Your task to perform on an android device: Clear the cart on amazon.com. Image 0: 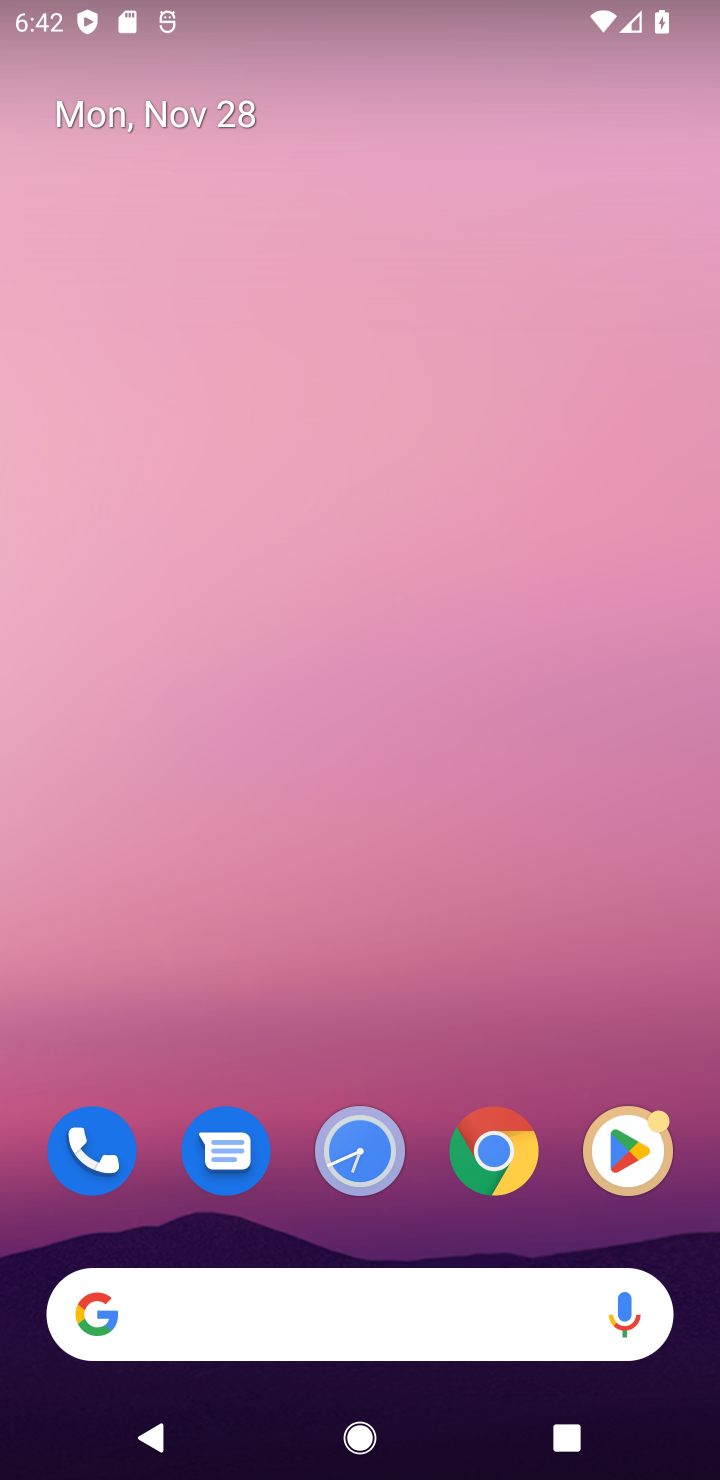
Step 0: click (479, 1303)
Your task to perform on an android device: Clear the cart on amazon.com. Image 1: 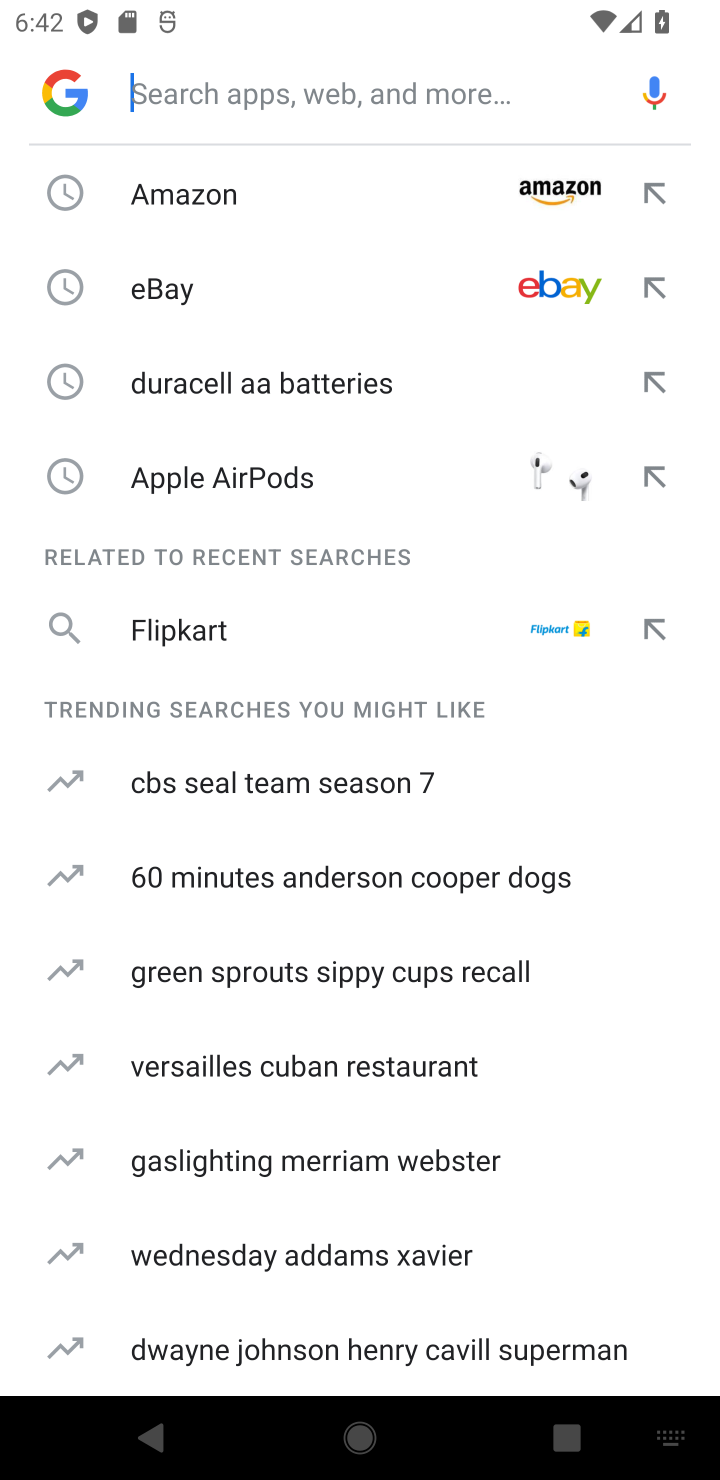
Step 1: click (232, 196)
Your task to perform on an android device: Clear the cart on amazon.com. Image 2: 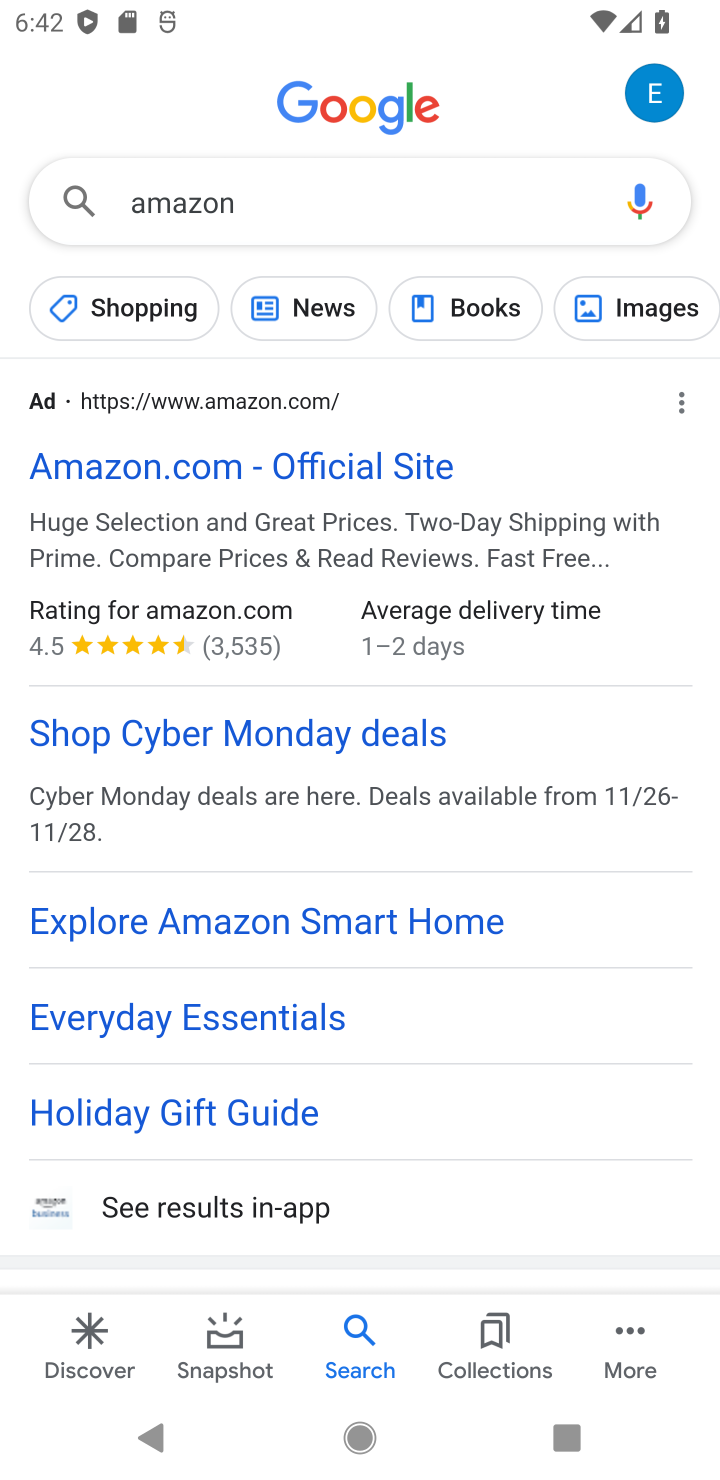
Step 2: click (106, 461)
Your task to perform on an android device: Clear the cart on amazon.com. Image 3: 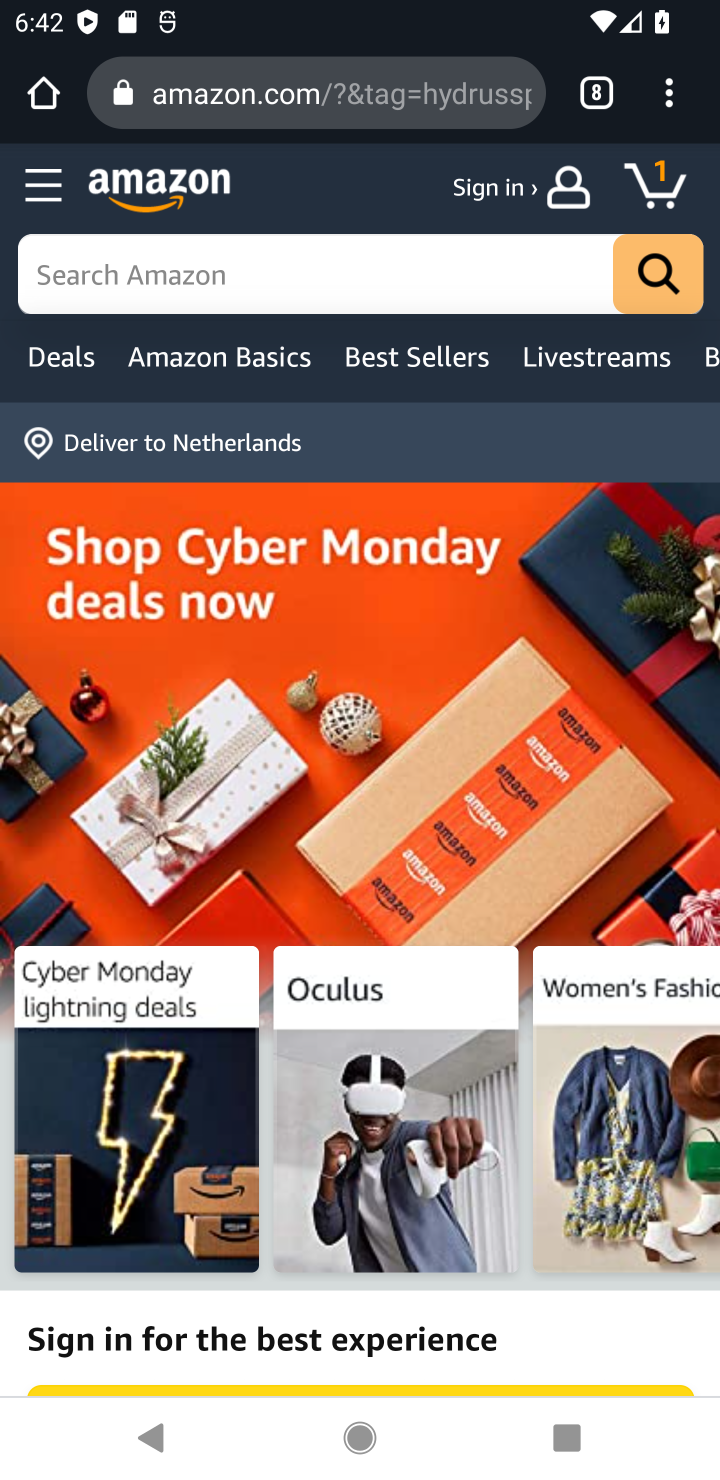
Step 3: click (292, 269)
Your task to perform on an android device: Clear the cart on amazon.com. Image 4: 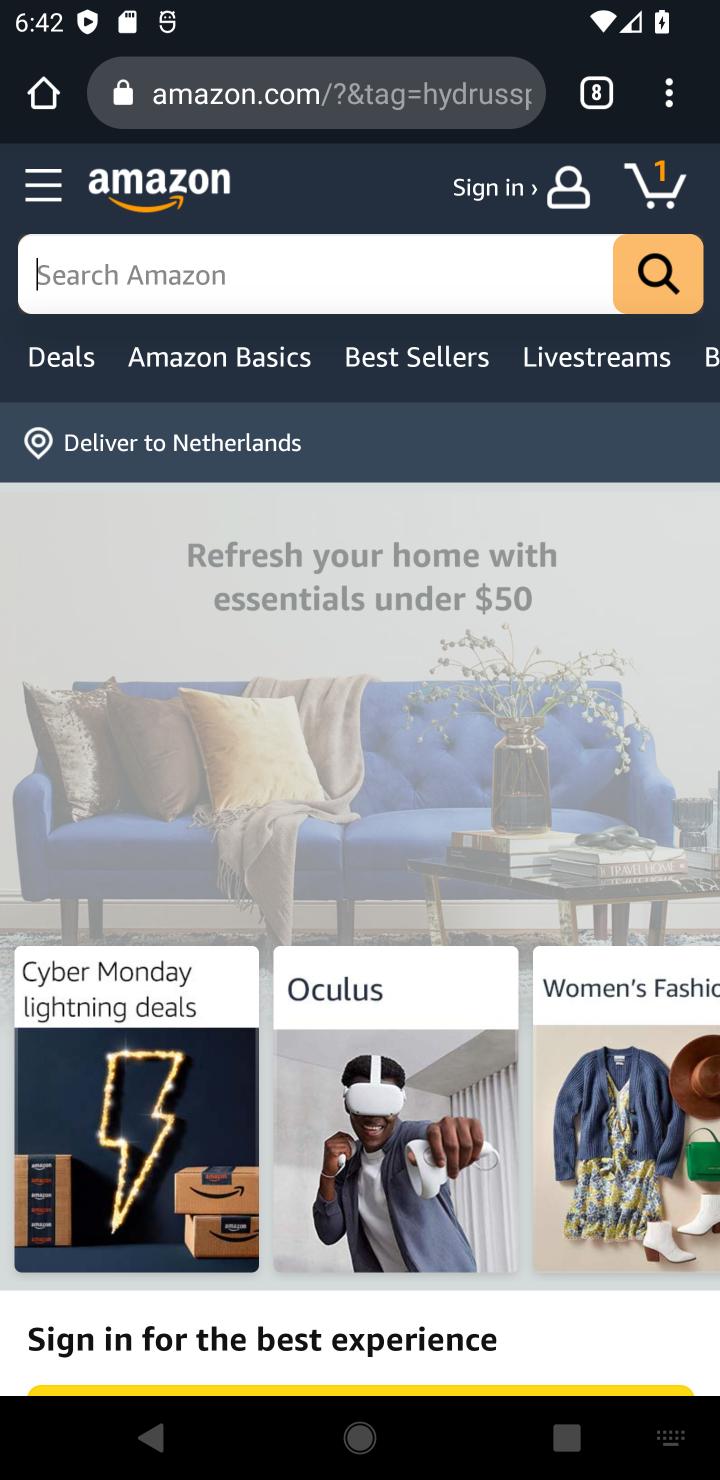
Step 4: click (639, 186)
Your task to perform on an android device: Clear the cart on amazon.com. Image 5: 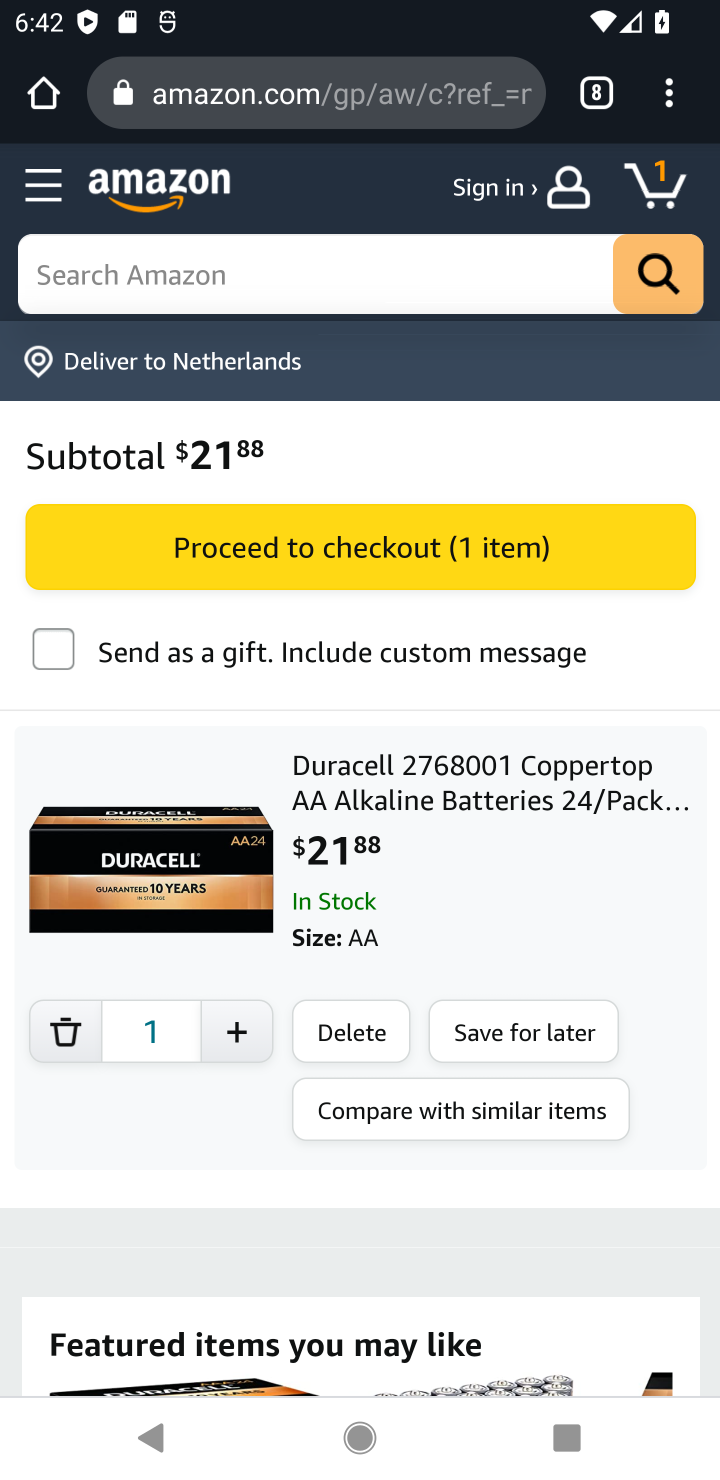
Step 5: click (639, 186)
Your task to perform on an android device: Clear the cart on amazon.com. Image 6: 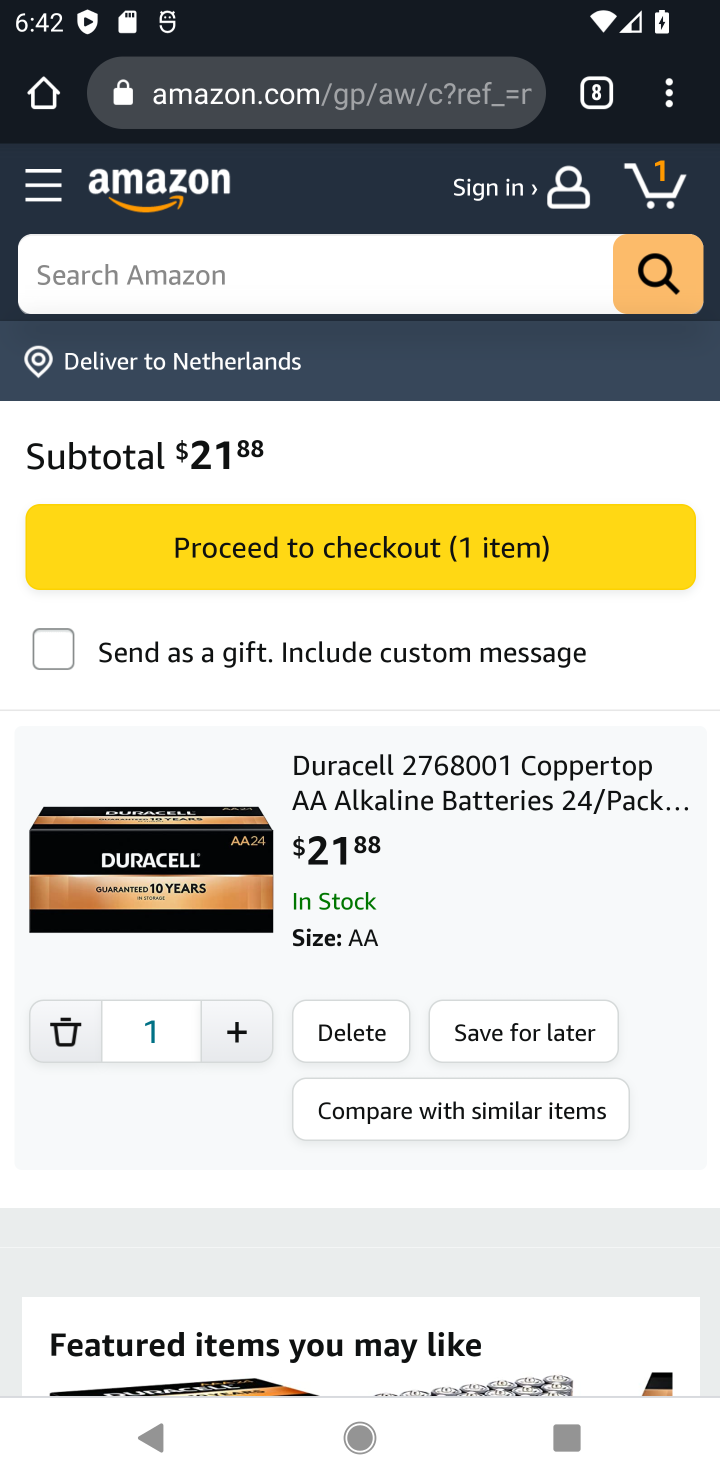
Step 6: click (340, 1021)
Your task to perform on an android device: Clear the cart on amazon.com. Image 7: 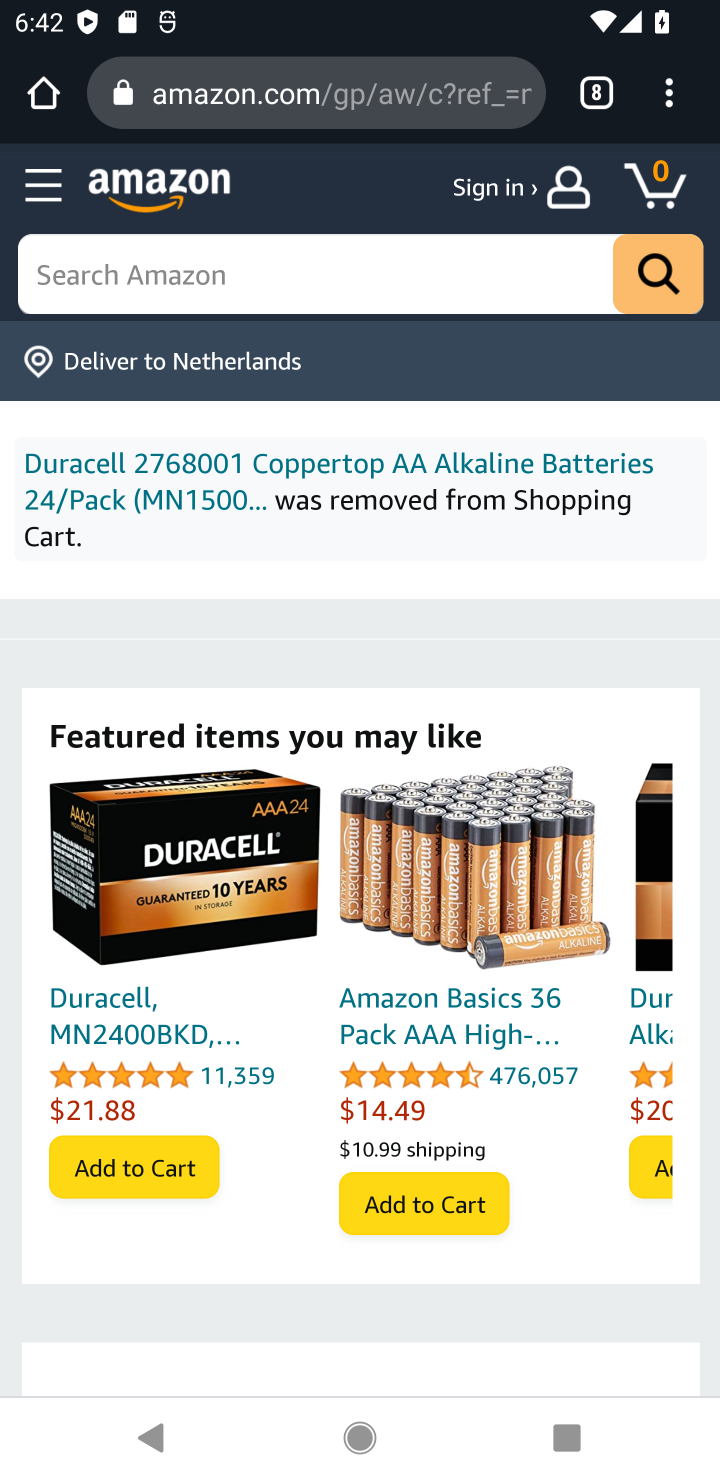
Step 7: task complete